Your task to perform on an android device: What's the weather going to be tomorrow? Image 0: 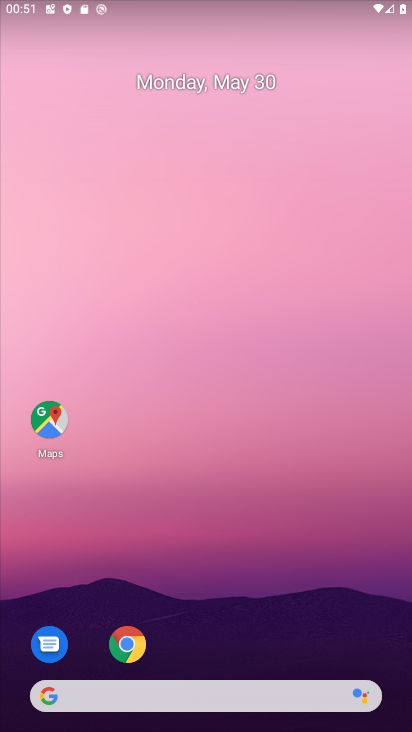
Step 0: drag from (325, 614) to (228, 51)
Your task to perform on an android device: What's the weather going to be tomorrow? Image 1: 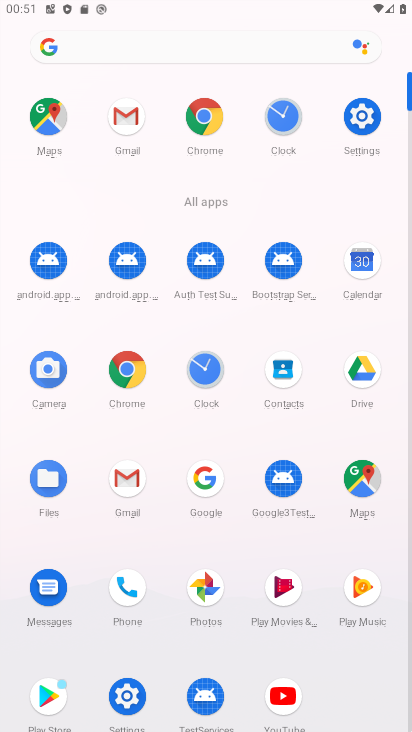
Step 1: click (201, 107)
Your task to perform on an android device: What's the weather going to be tomorrow? Image 2: 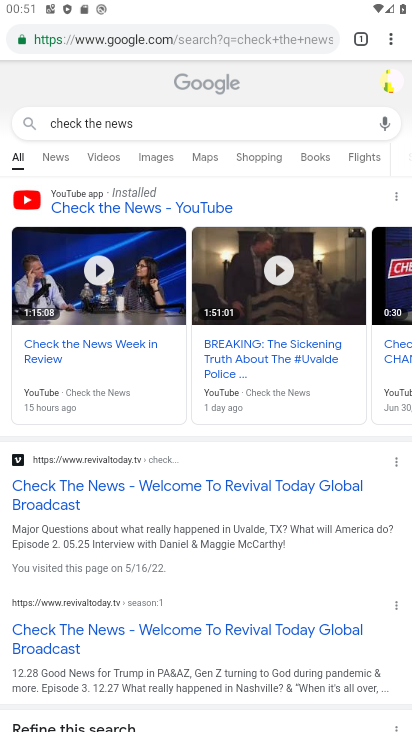
Step 2: click (188, 115)
Your task to perform on an android device: What's the weather going to be tomorrow? Image 3: 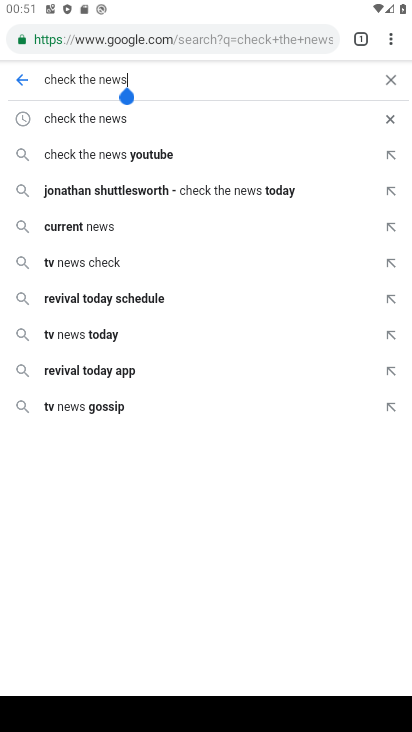
Step 3: click (189, 33)
Your task to perform on an android device: What's the weather going to be tomorrow? Image 4: 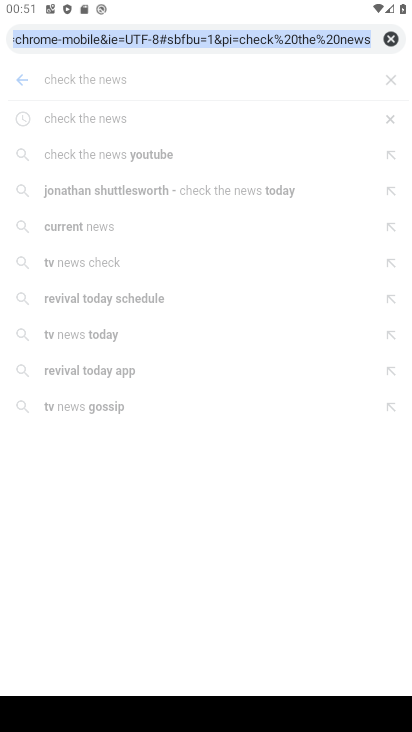
Step 4: click (391, 39)
Your task to perform on an android device: What's the weather going to be tomorrow? Image 5: 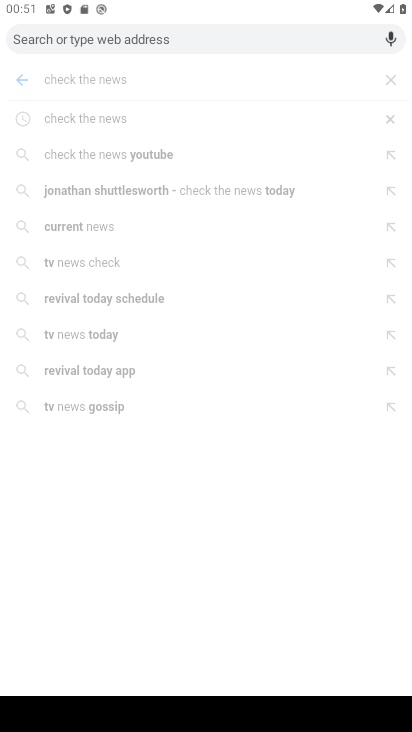
Step 5: type "what's the weather going to be tomorrow"
Your task to perform on an android device: What's the weather going to be tomorrow? Image 6: 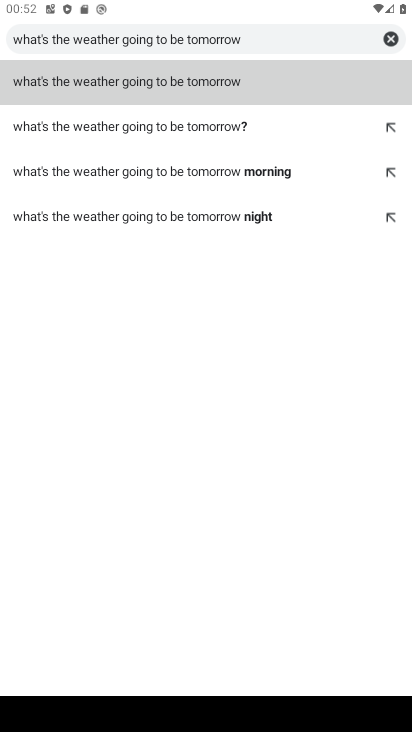
Step 6: click (119, 80)
Your task to perform on an android device: What's the weather going to be tomorrow? Image 7: 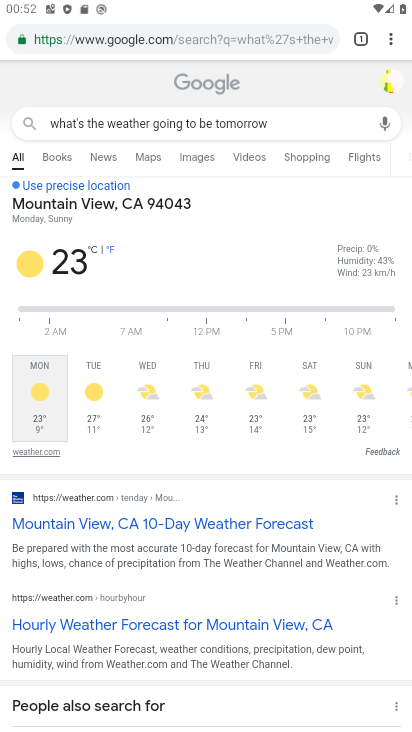
Step 7: task complete